Your task to perform on an android device: empty trash in the gmail app Image 0: 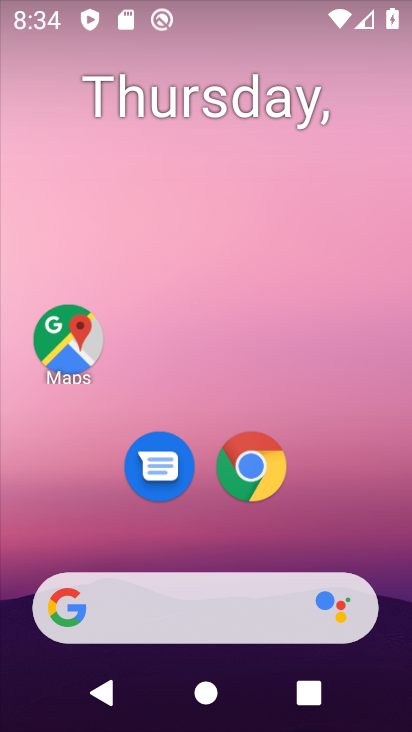
Step 0: press home button
Your task to perform on an android device: empty trash in the gmail app Image 1: 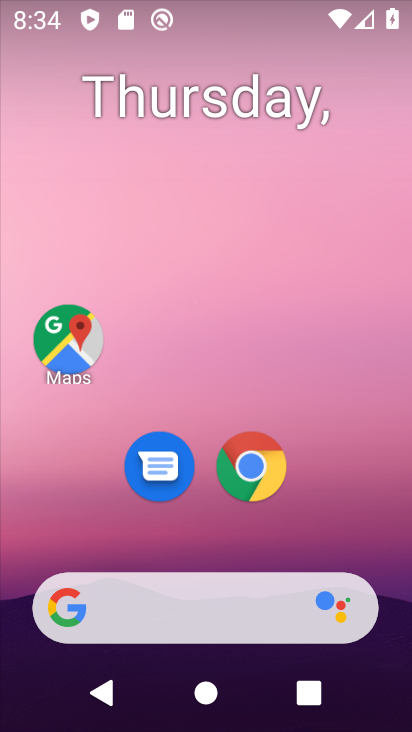
Step 1: drag from (206, 592) to (355, 163)
Your task to perform on an android device: empty trash in the gmail app Image 2: 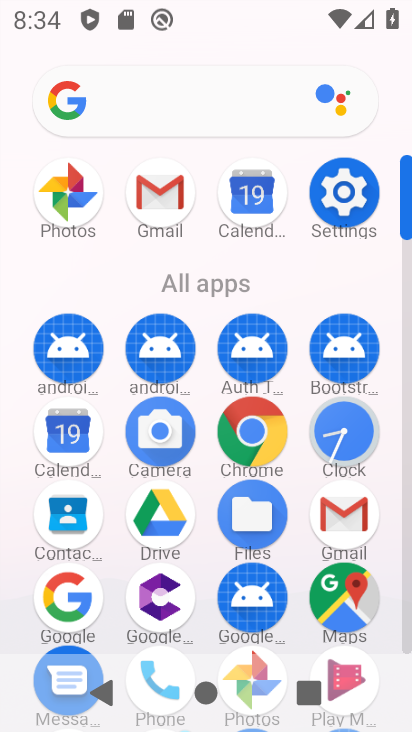
Step 2: click (352, 530)
Your task to perform on an android device: empty trash in the gmail app Image 3: 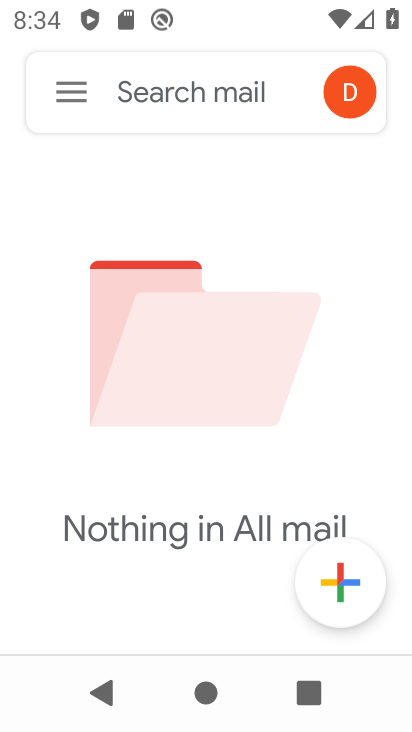
Step 3: click (76, 95)
Your task to perform on an android device: empty trash in the gmail app Image 4: 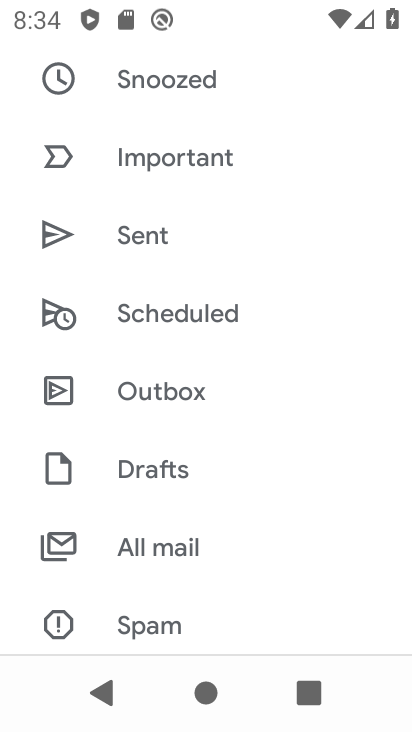
Step 4: drag from (233, 496) to (354, 262)
Your task to perform on an android device: empty trash in the gmail app Image 5: 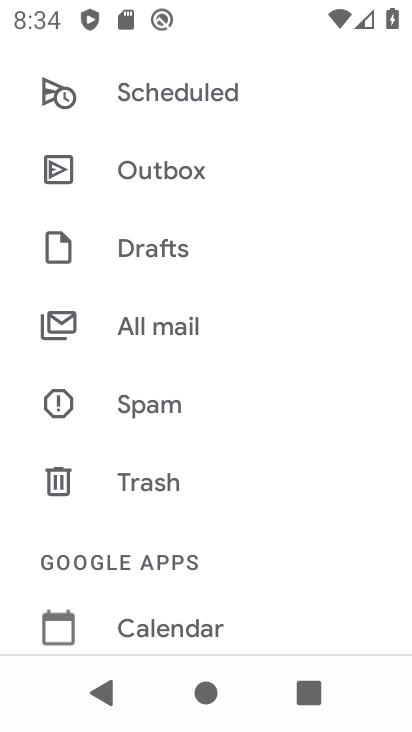
Step 5: click (156, 477)
Your task to perform on an android device: empty trash in the gmail app Image 6: 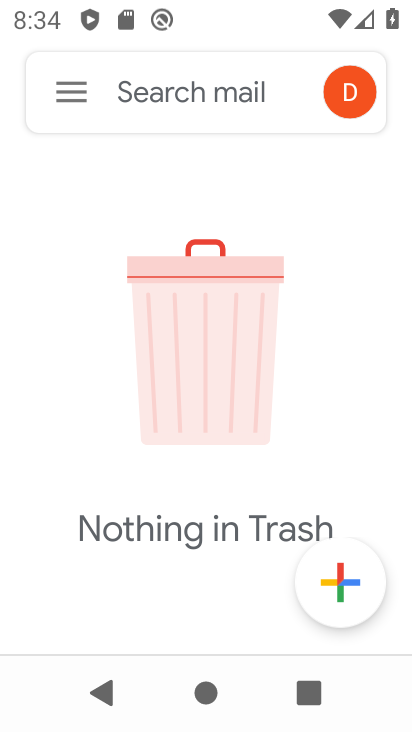
Step 6: task complete